Your task to perform on an android device: turn off picture-in-picture Image 0: 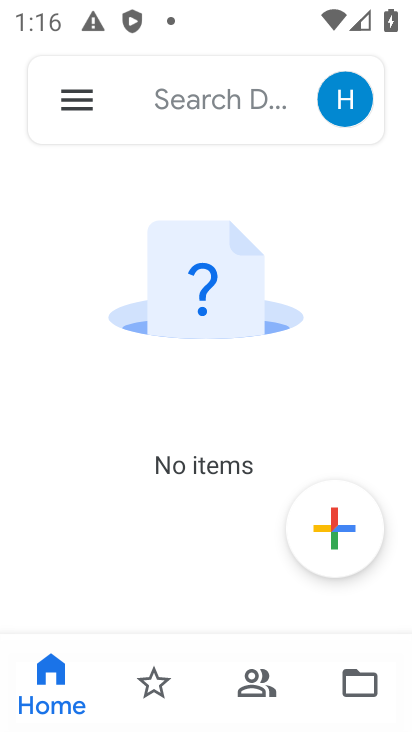
Step 0: press home button
Your task to perform on an android device: turn off picture-in-picture Image 1: 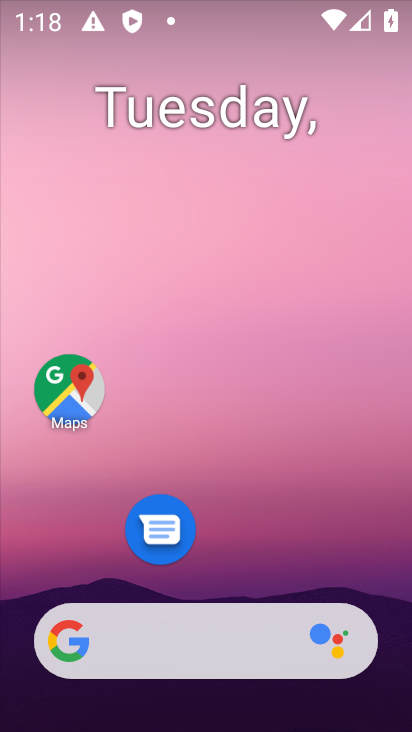
Step 1: drag from (274, 600) to (201, 100)
Your task to perform on an android device: turn off picture-in-picture Image 2: 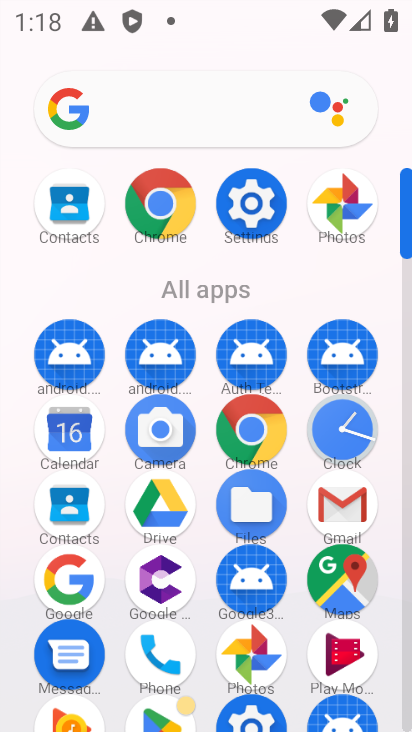
Step 2: click (247, 225)
Your task to perform on an android device: turn off picture-in-picture Image 3: 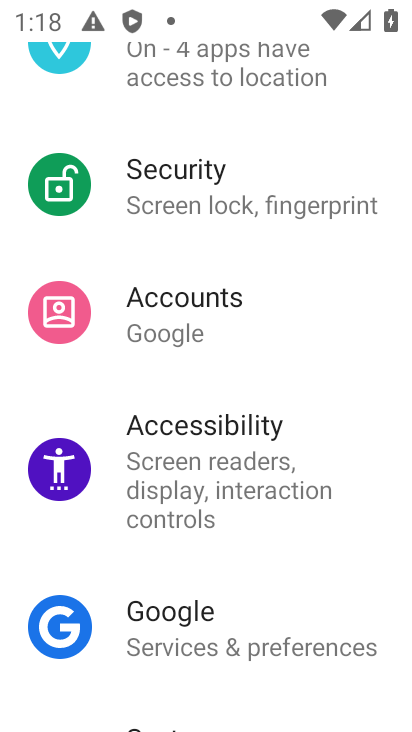
Step 3: task complete